Your task to perform on an android device: Open calendar and show me the first week of next month Image 0: 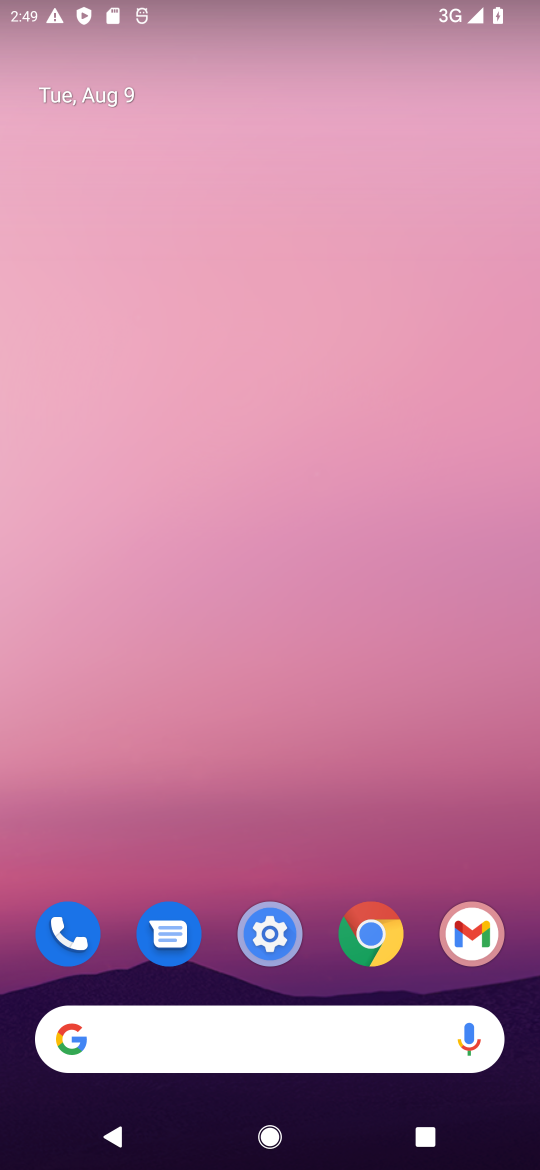
Step 0: task complete